Your task to perform on an android device: Open calendar and show me the fourth week of next month Image 0: 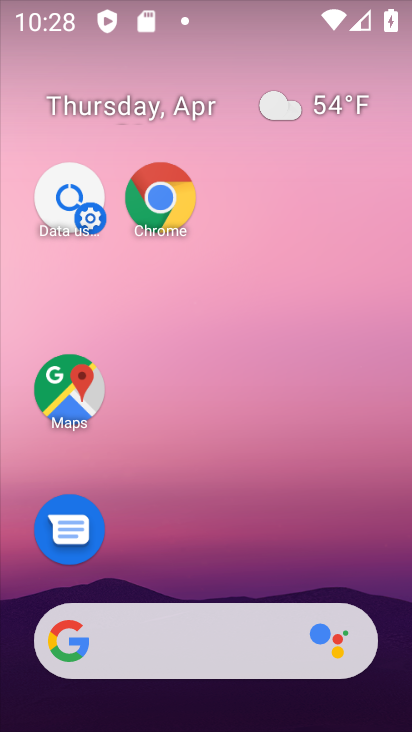
Step 0: drag from (164, 44) to (268, 3)
Your task to perform on an android device: Open calendar and show me the fourth week of next month Image 1: 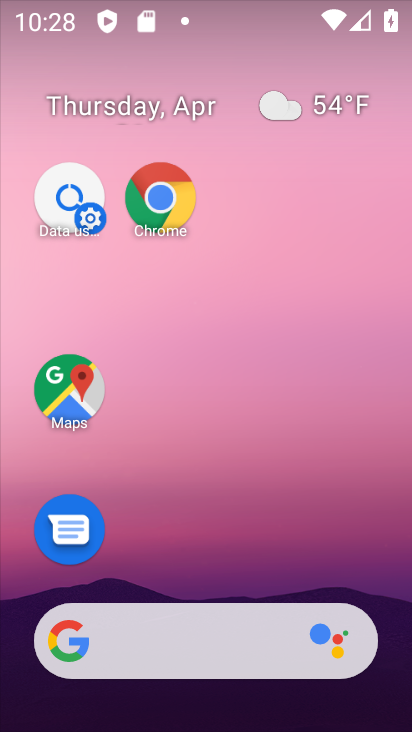
Step 1: drag from (209, 600) to (192, 83)
Your task to perform on an android device: Open calendar and show me the fourth week of next month Image 2: 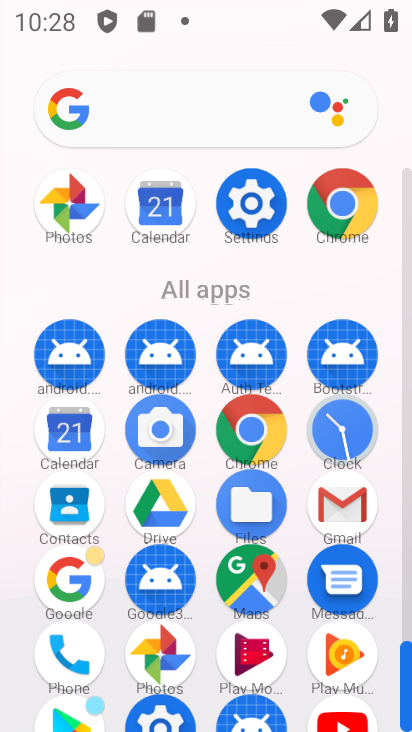
Step 2: click (57, 419)
Your task to perform on an android device: Open calendar and show me the fourth week of next month Image 3: 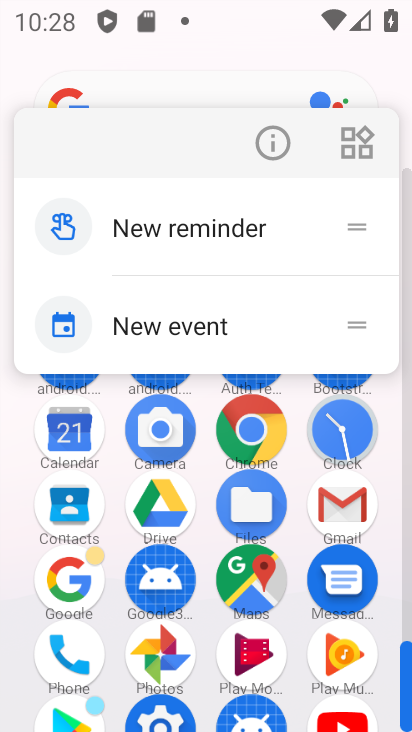
Step 3: click (66, 435)
Your task to perform on an android device: Open calendar and show me the fourth week of next month Image 4: 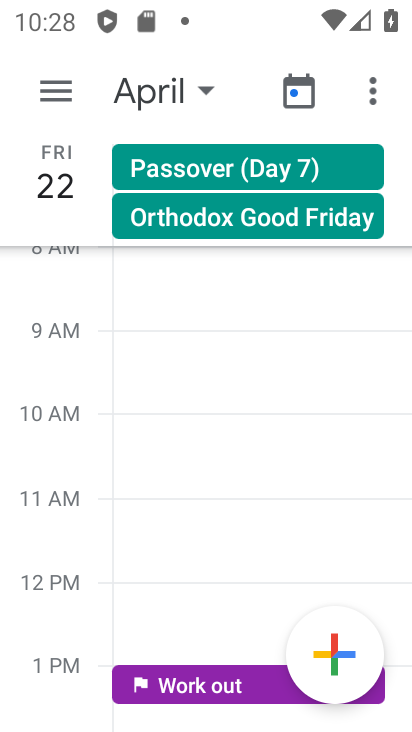
Step 4: click (52, 75)
Your task to perform on an android device: Open calendar and show me the fourth week of next month Image 5: 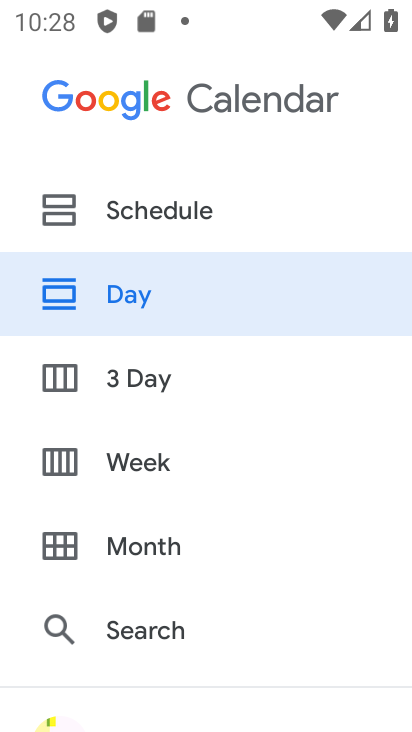
Step 5: click (153, 445)
Your task to perform on an android device: Open calendar and show me the fourth week of next month Image 6: 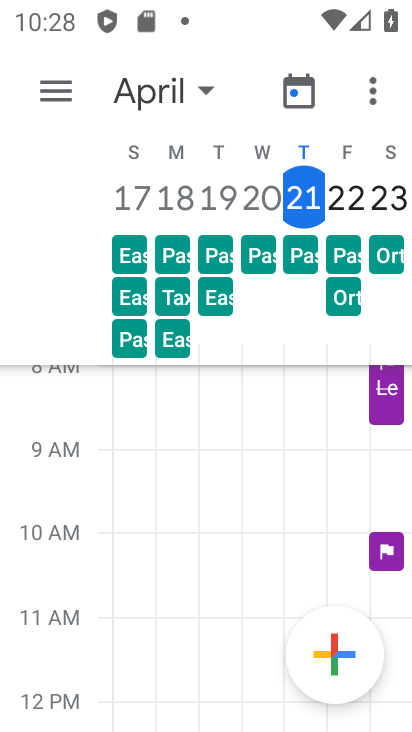
Step 6: task complete